Your task to perform on an android device: Open calendar and show me the first week of next month Image 0: 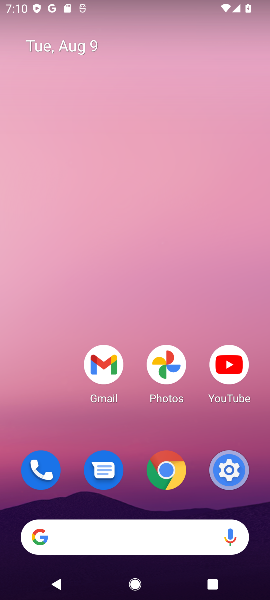
Step 0: drag from (159, 588) to (166, 256)
Your task to perform on an android device: Open calendar and show me the first week of next month Image 1: 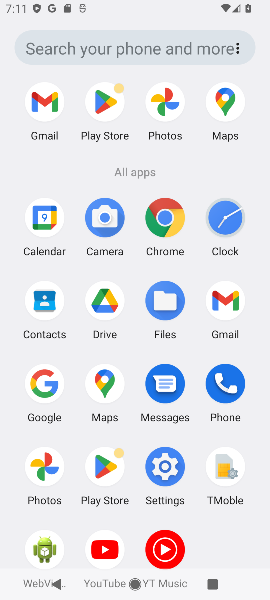
Step 1: click (53, 233)
Your task to perform on an android device: Open calendar and show me the first week of next month Image 2: 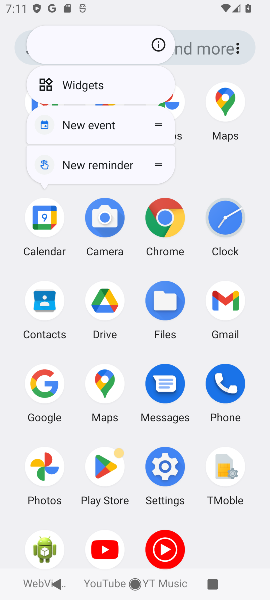
Step 2: click (53, 233)
Your task to perform on an android device: Open calendar and show me the first week of next month Image 3: 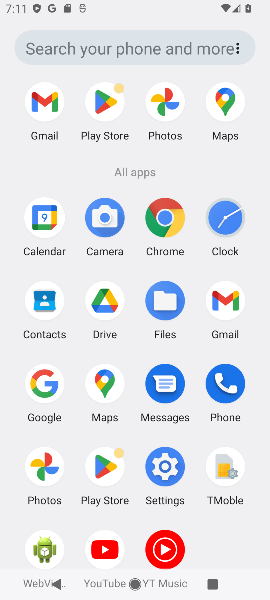
Step 3: click (53, 233)
Your task to perform on an android device: Open calendar and show me the first week of next month Image 4: 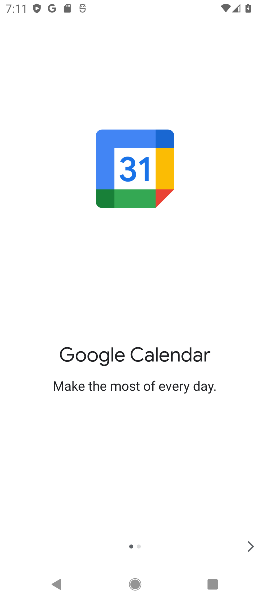
Step 4: click (254, 551)
Your task to perform on an android device: Open calendar and show me the first week of next month Image 5: 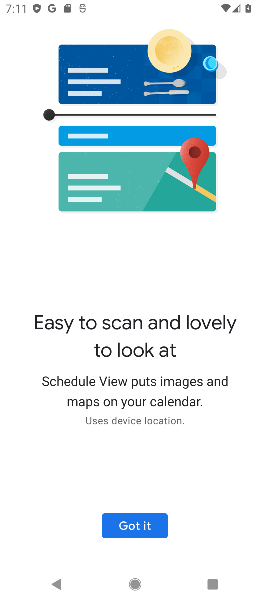
Step 5: click (147, 519)
Your task to perform on an android device: Open calendar and show me the first week of next month Image 6: 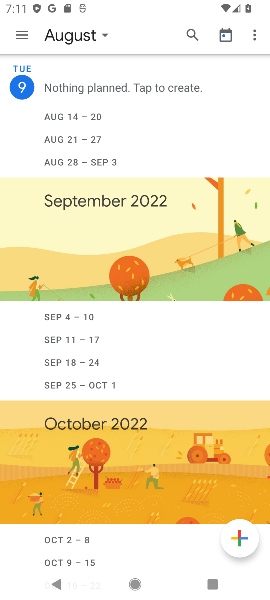
Step 6: click (82, 32)
Your task to perform on an android device: Open calendar and show me the first week of next month Image 7: 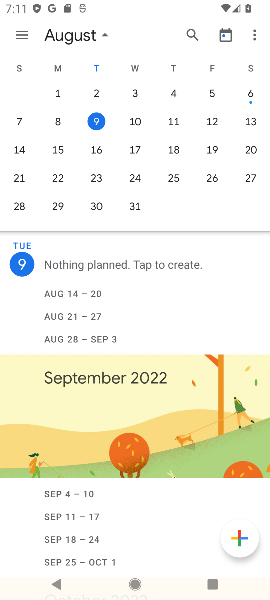
Step 7: drag from (218, 124) to (6, 189)
Your task to perform on an android device: Open calendar and show me the first week of next month Image 8: 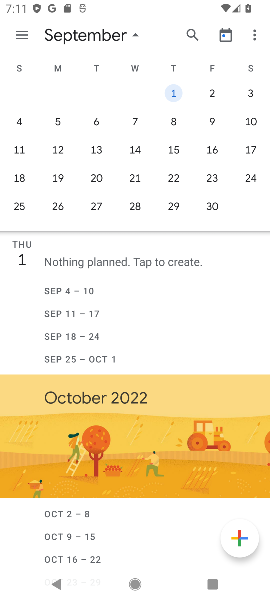
Step 8: click (179, 93)
Your task to perform on an android device: Open calendar and show me the first week of next month Image 9: 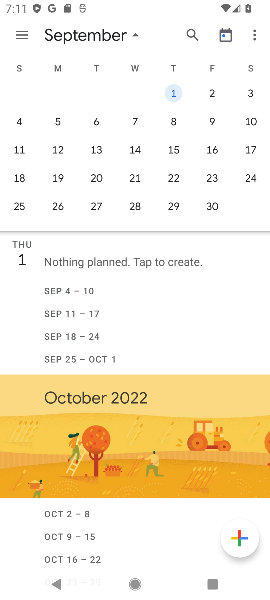
Step 9: task complete